Your task to perform on an android device: turn on translation in the chrome app Image 0: 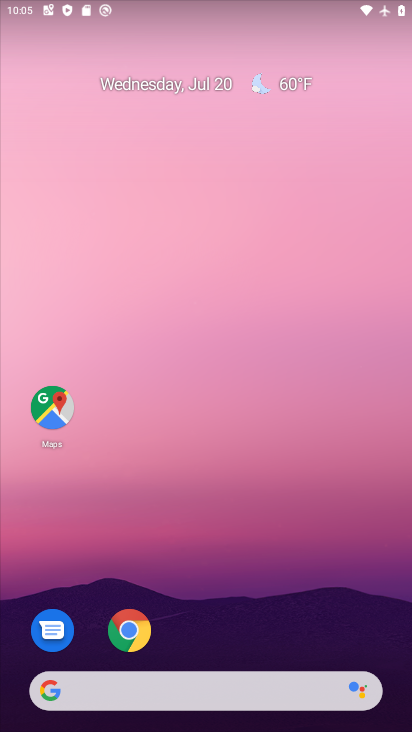
Step 0: click (124, 641)
Your task to perform on an android device: turn on translation in the chrome app Image 1: 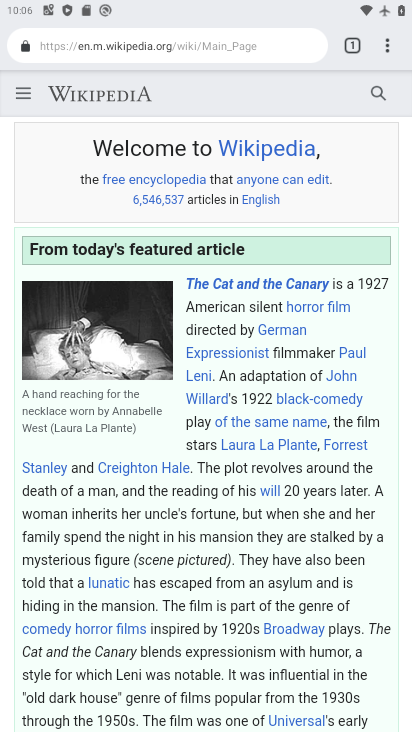
Step 1: click (383, 34)
Your task to perform on an android device: turn on translation in the chrome app Image 2: 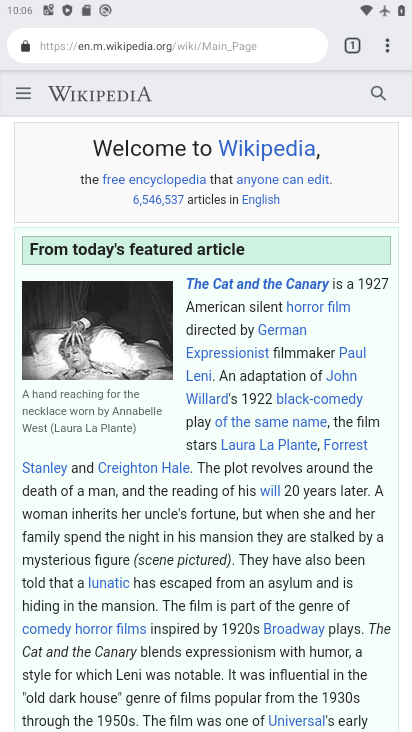
Step 2: click (387, 44)
Your task to perform on an android device: turn on translation in the chrome app Image 3: 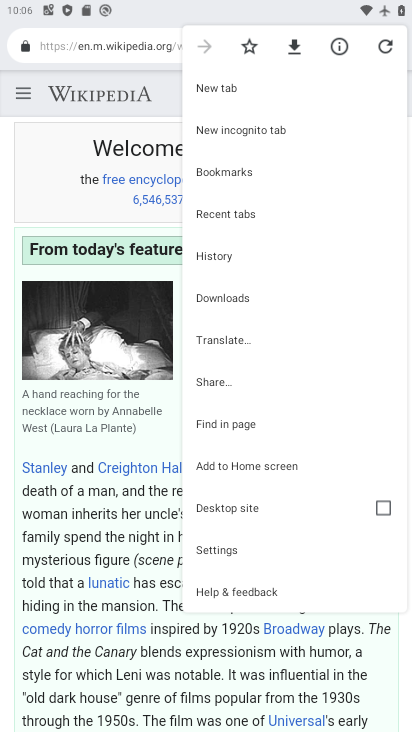
Step 3: click (232, 546)
Your task to perform on an android device: turn on translation in the chrome app Image 4: 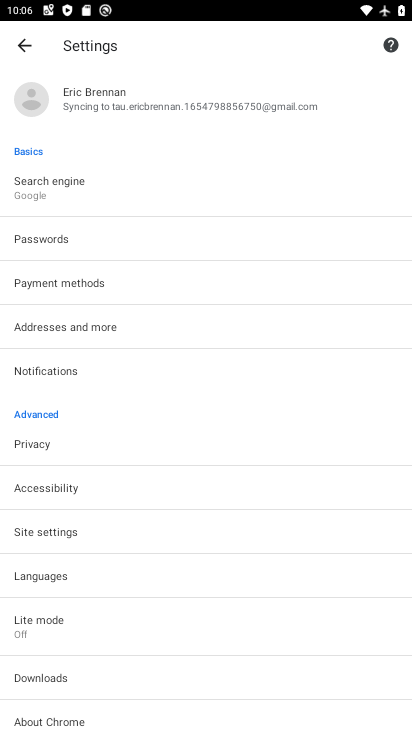
Step 4: click (49, 577)
Your task to perform on an android device: turn on translation in the chrome app Image 5: 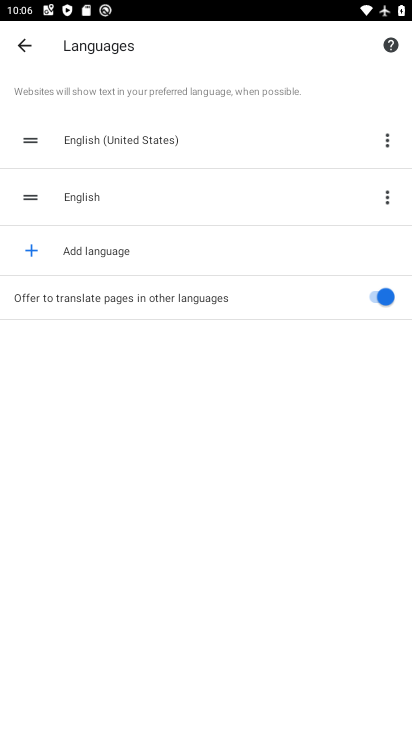
Step 5: task complete